Your task to perform on an android device: delete the emails in spam in the gmail app Image 0: 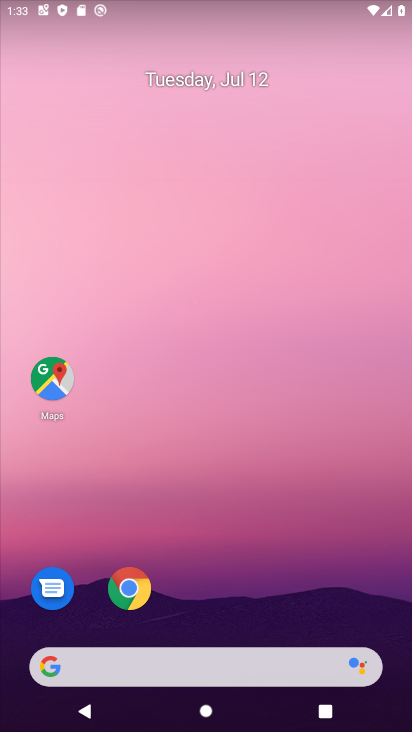
Step 0: drag from (191, 613) to (185, 166)
Your task to perform on an android device: delete the emails in spam in the gmail app Image 1: 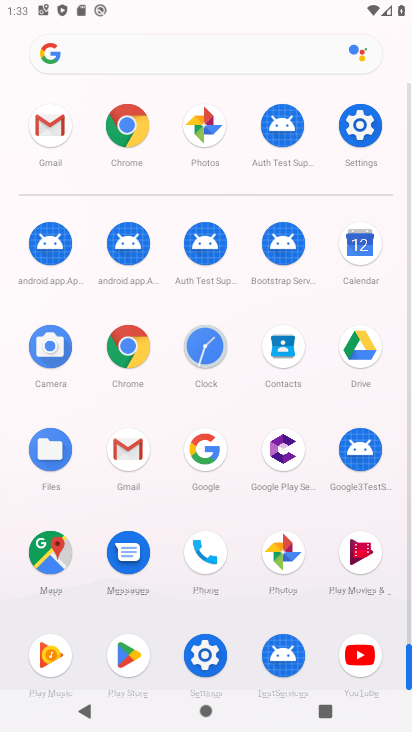
Step 1: click (126, 441)
Your task to perform on an android device: delete the emails in spam in the gmail app Image 2: 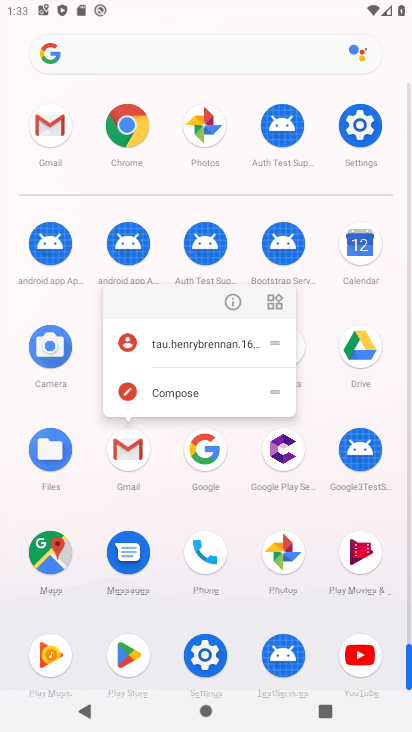
Step 2: click (243, 291)
Your task to perform on an android device: delete the emails in spam in the gmail app Image 3: 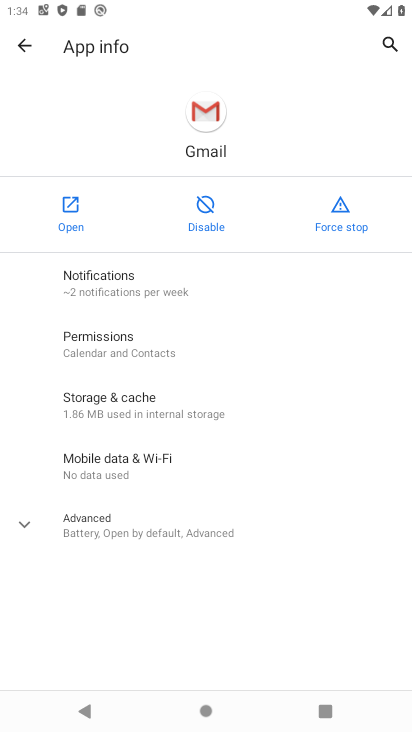
Step 3: click (76, 222)
Your task to perform on an android device: delete the emails in spam in the gmail app Image 4: 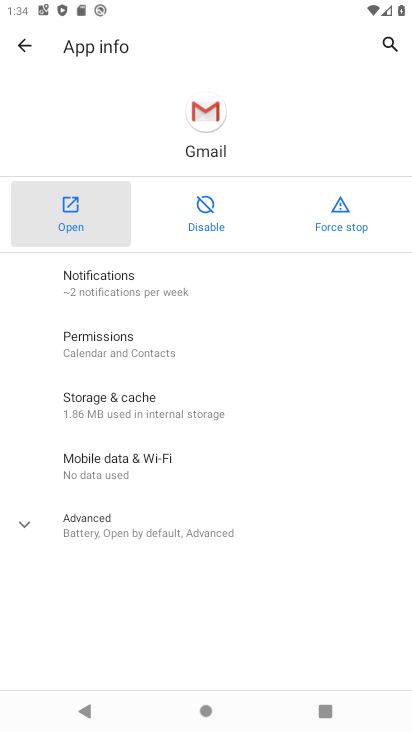
Step 4: click (76, 222)
Your task to perform on an android device: delete the emails in spam in the gmail app Image 5: 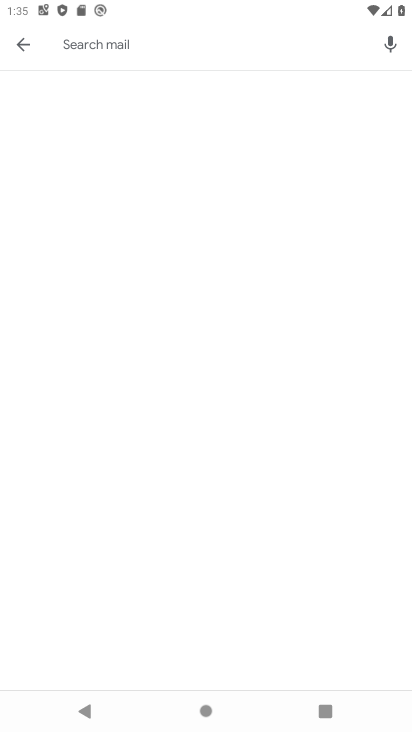
Step 5: task complete